Your task to perform on an android device: see creations saved in the google photos Image 0: 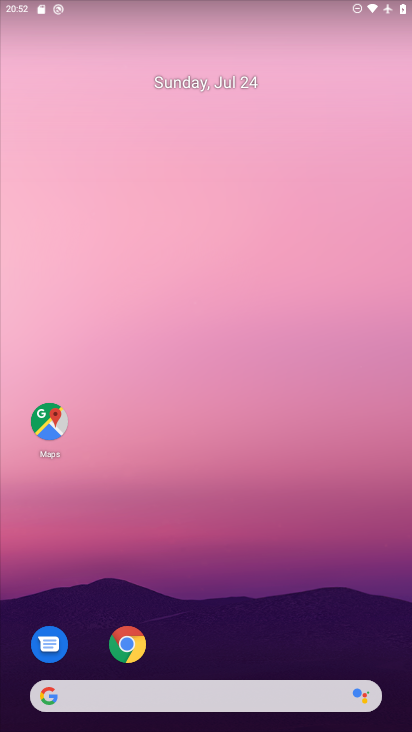
Step 0: drag from (390, 638) to (338, 112)
Your task to perform on an android device: see creations saved in the google photos Image 1: 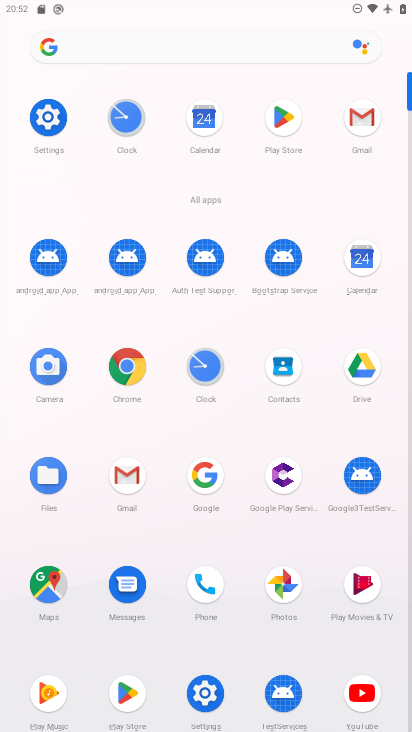
Step 1: click (280, 585)
Your task to perform on an android device: see creations saved in the google photos Image 2: 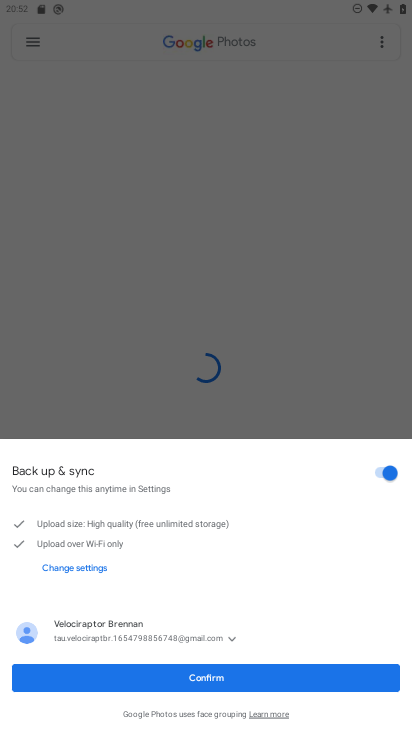
Step 2: click (207, 680)
Your task to perform on an android device: see creations saved in the google photos Image 3: 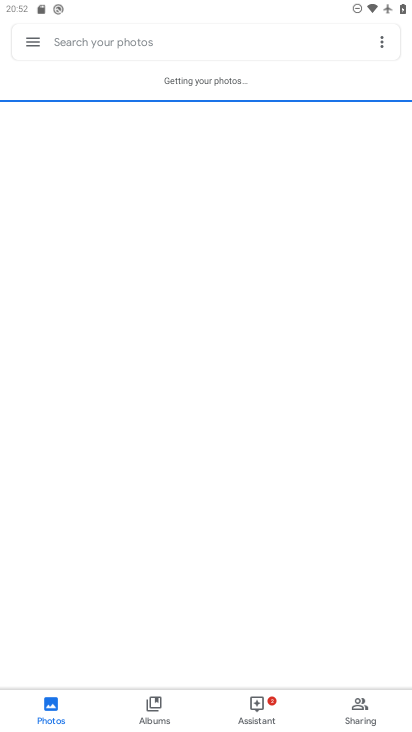
Step 3: click (31, 43)
Your task to perform on an android device: see creations saved in the google photos Image 4: 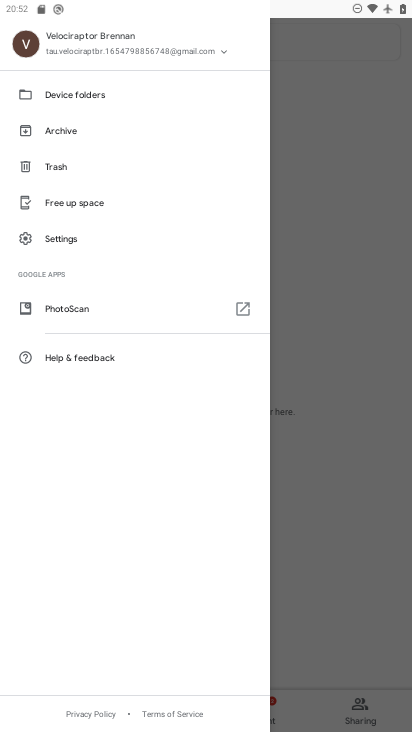
Step 4: click (334, 199)
Your task to perform on an android device: see creations saved in the google photos Image 5: 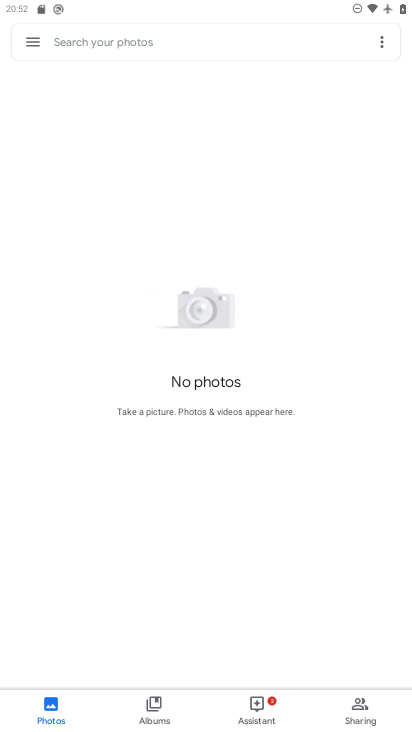
Step 5: drag from (194, 595) to (169, 314)
Your task to perform on an android device: see creations saved in the google photos Image 6: 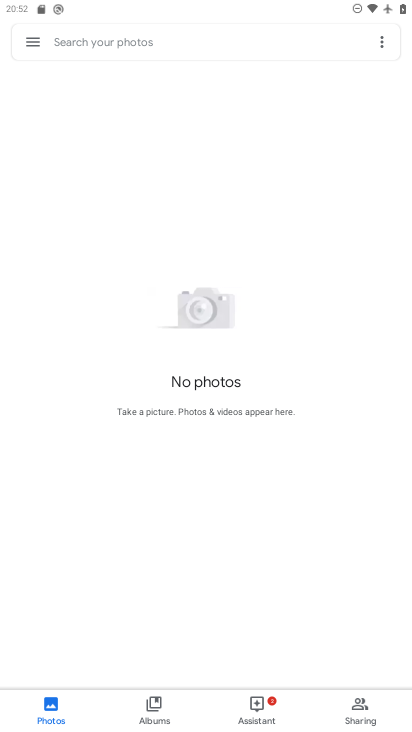
Step 6: click (156, 722)
Your task to perform on an android device: see creations saved in the google photos Image 7: 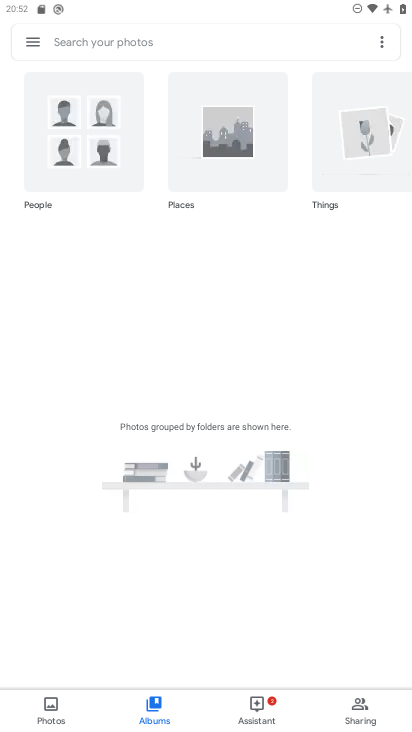
Step 7: task complete